Your task to perform on an android device: find snoozed emails in the gmail app Image 0: 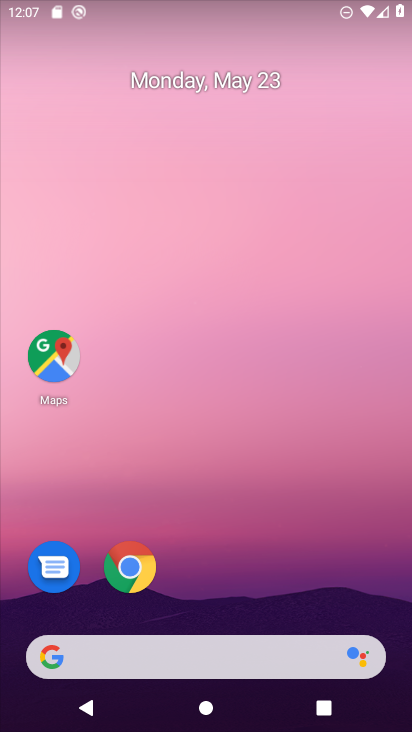
Step 0: drag from (176, 609) to (237, 32)
Your task to perform on an android device: find snoozed emails in the gmail app Image 1: 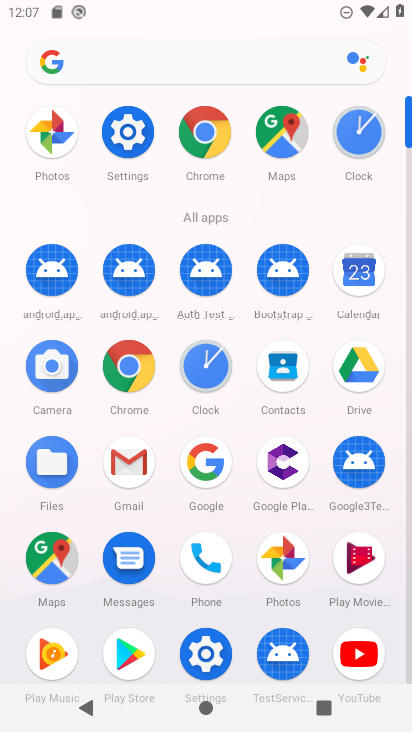
Step 1: click (112, 474)
Your task to perform on an android device: find snoozed emails in the gmail app Image 2: 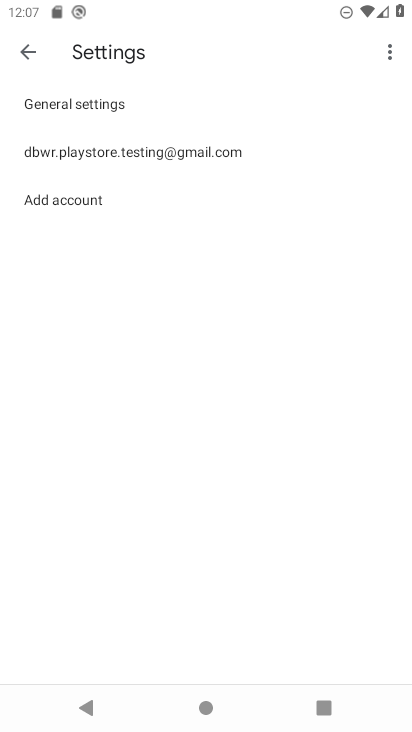
Step 2: click (23, 53)
Your task to perform on an android device: find snoozed emails in the gmail app Image 3: 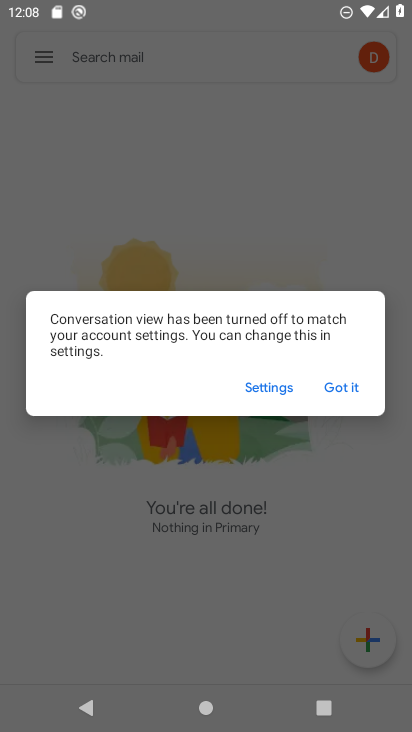
Step 3: click (351, 395)
Your task to perform on an android device: find snoozed emails in the gmail app Image 4: 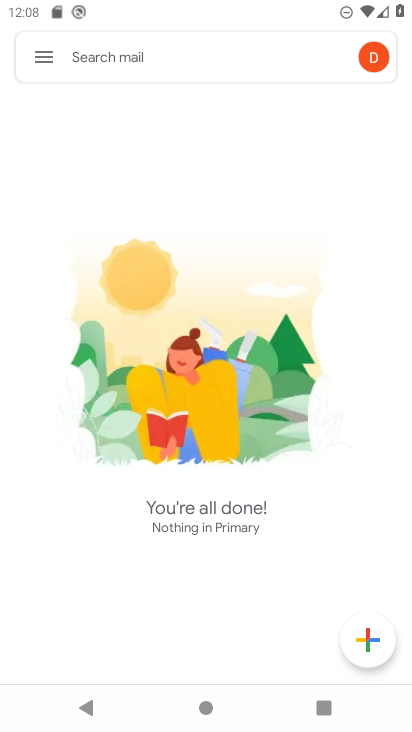
Step 4: click (58, 64)
Your task to perform on an android device: find snoozed emails in the gmail app Image 5: 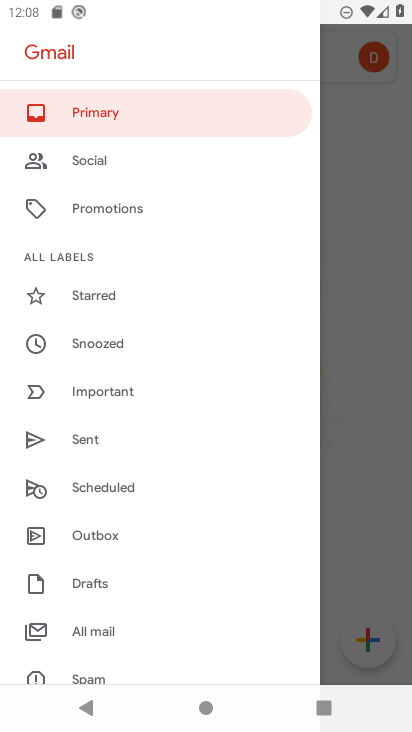
Step 5: drag from (84, 643) to (197, 215)
Your task to perform on an android device: find snoozed emails in the gmail app Image 6: 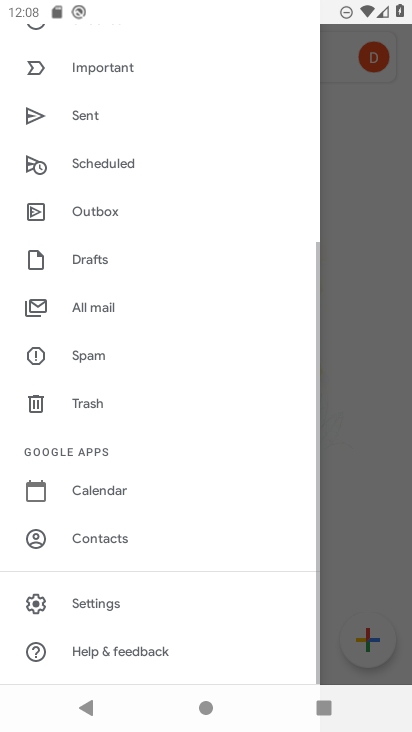
Step 6: drag from (115, 77) to (175, 668)
Your task to perform on an android device: find snoozed emails in the gmail app Image 7: 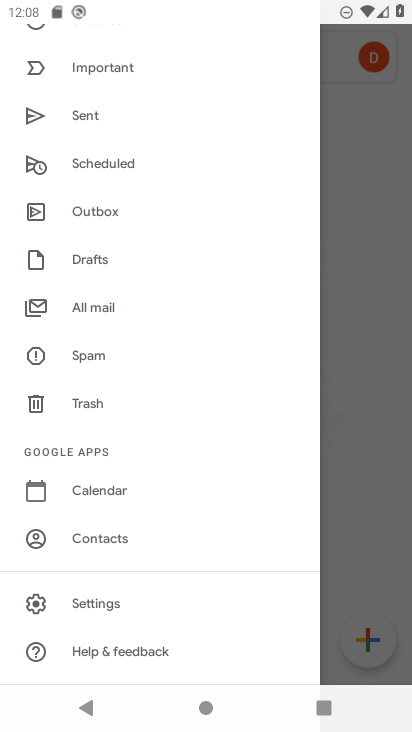
Step 7: drag from (101, 81) to (86, 420)
Your task to perform on an android device: find snoozed emails in the gmail app Image 8: 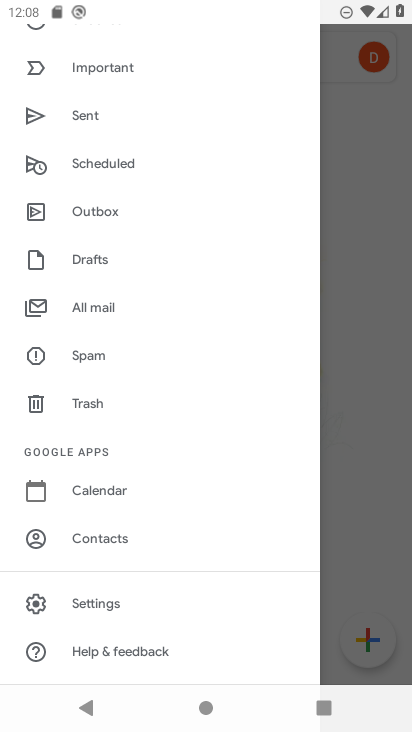
Step 8: drag from (104, 269) to (179, 676)
Your task to perform on an android device: find snoozed emails in the gmail app Image 9: 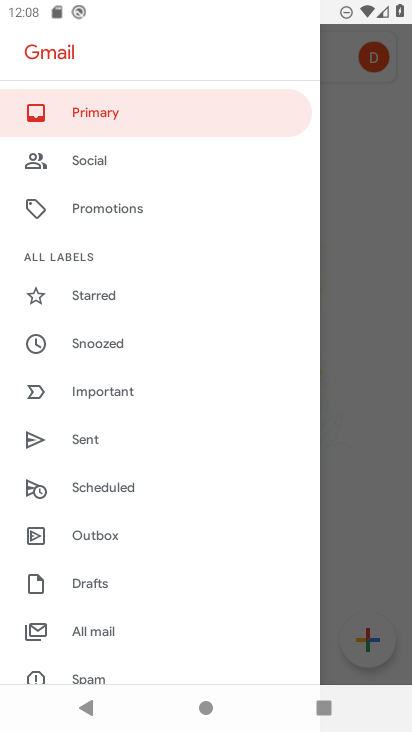
Step 9: click (86, 355)
Your task to perform on an android device: find snoozed emails in the gmail app Image 10: 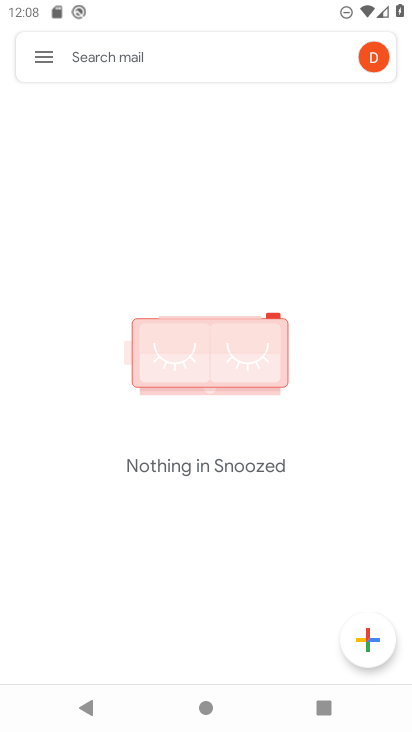
Step 10: click (86, 355)
Your task to perform on an android device: find snoozed emails in the gmail app Image 11: 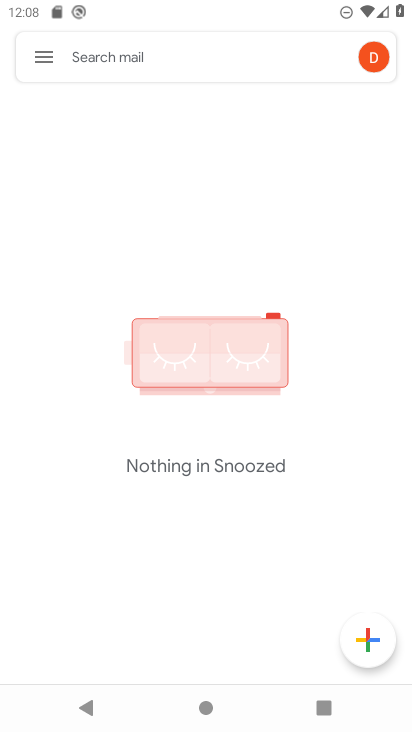
Step 11: task complete